Your task to perform on an android device: turn off notifications in google photos Image 0: 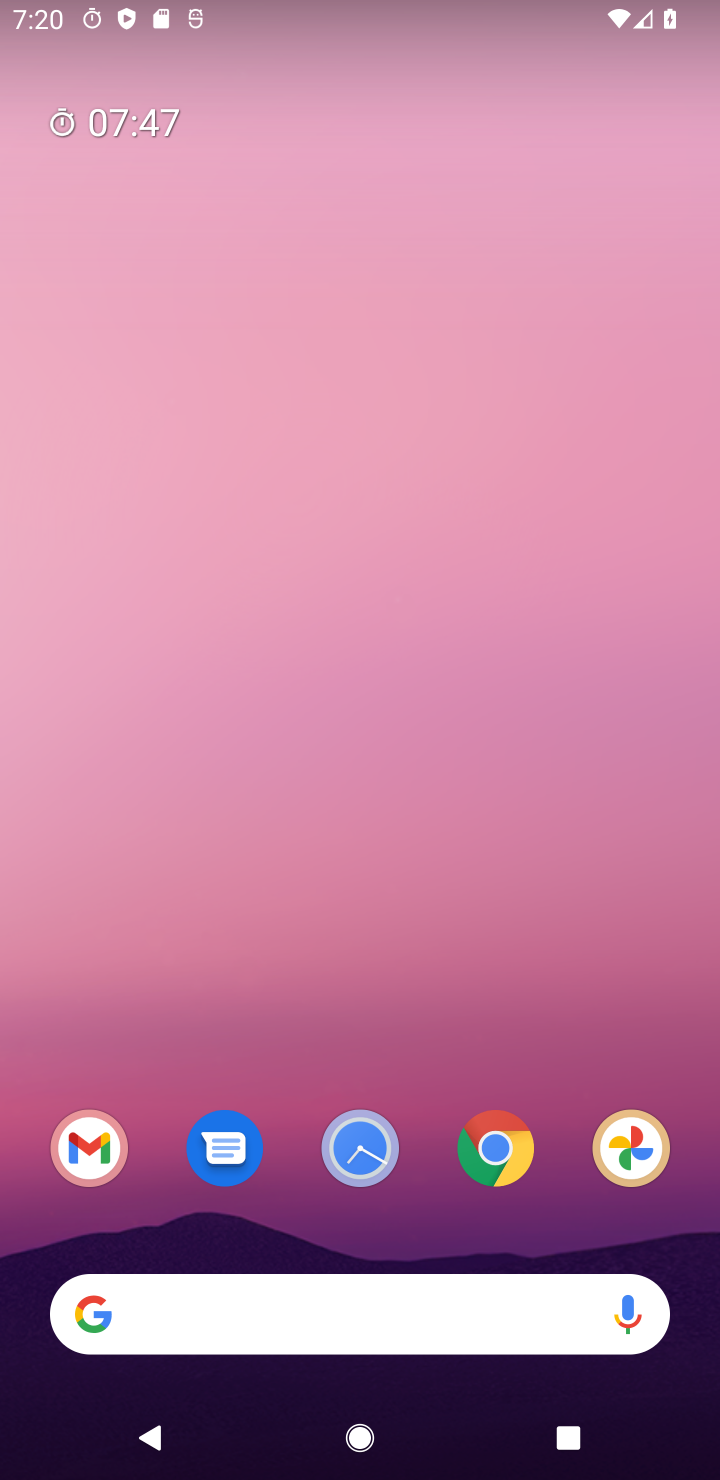
Step 0: press home button
Your task to perform on an android device: turn off notifications in google photos Image 1: 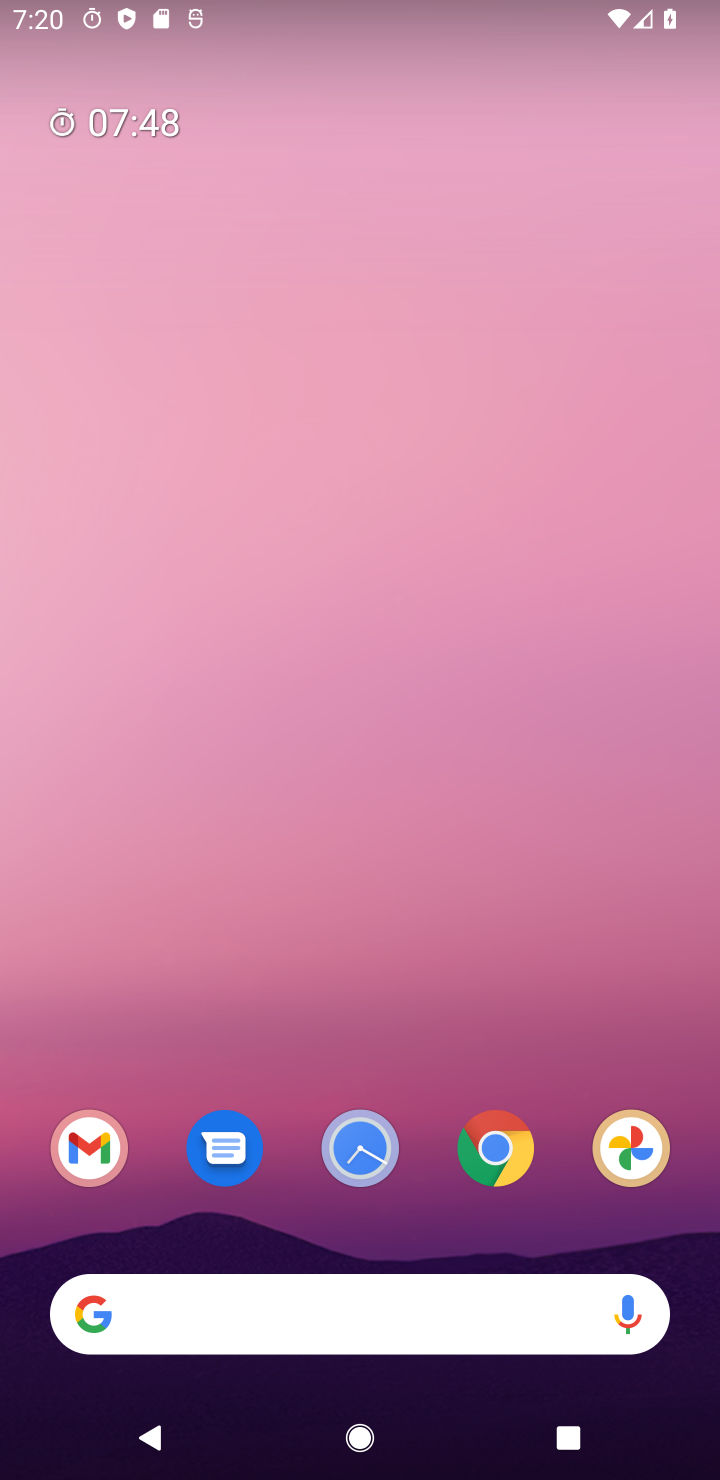
Step 1: drag from (409, 984) to (343, 65)
Your task to perform on an android device: turn off notifications in google photos Image 2: 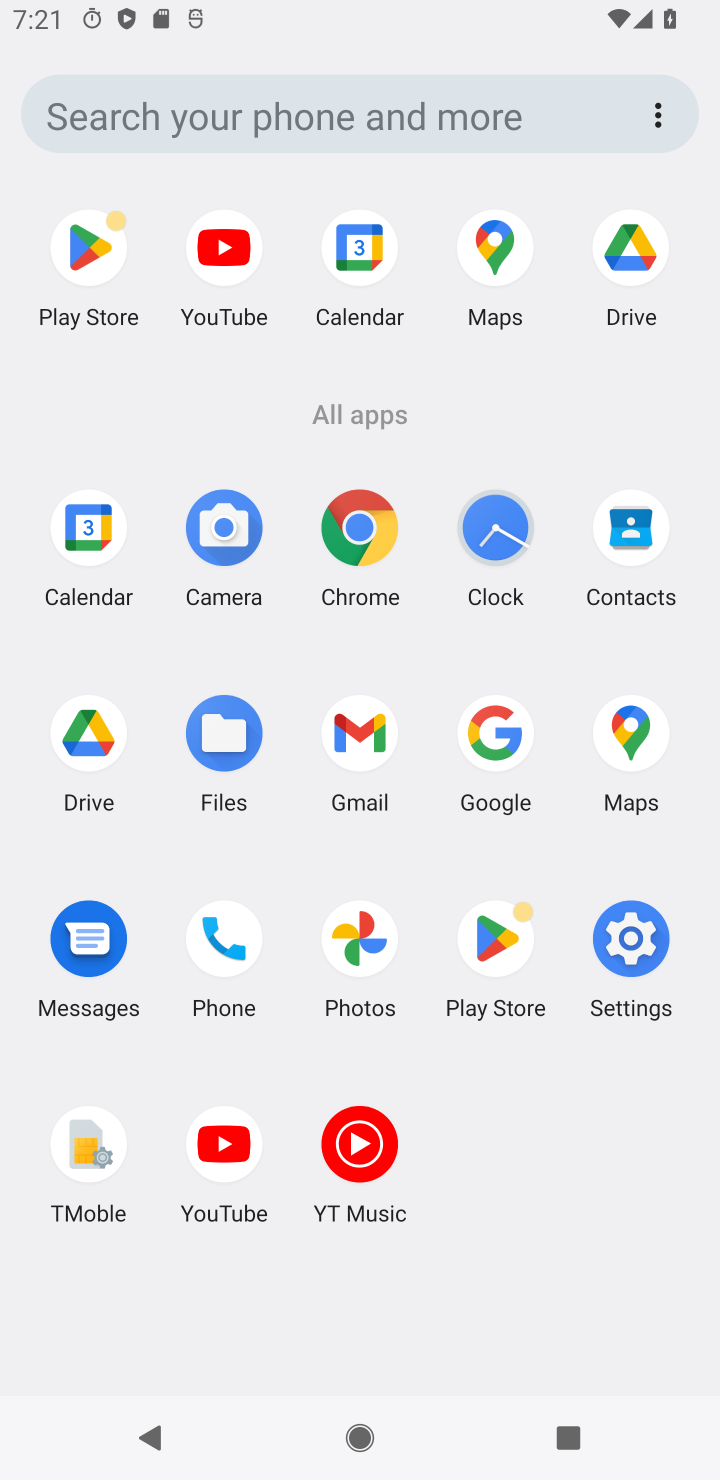
Step 2: click (313, 977)
Your task to perform on an android device: turn off notifications in google photos Image 3: 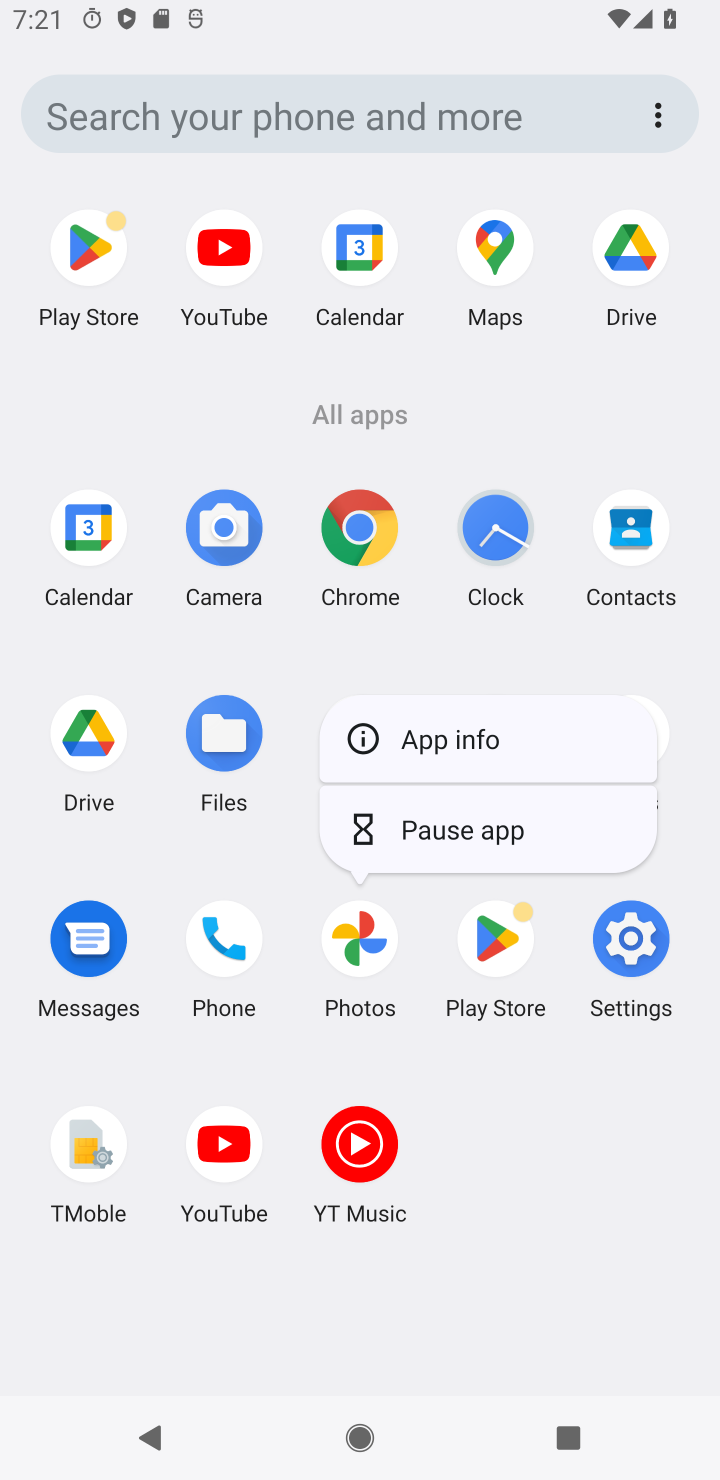
Step 3: click (471, 739)
Your task to perform on an android device: turn off notifications in google photos Image 4: 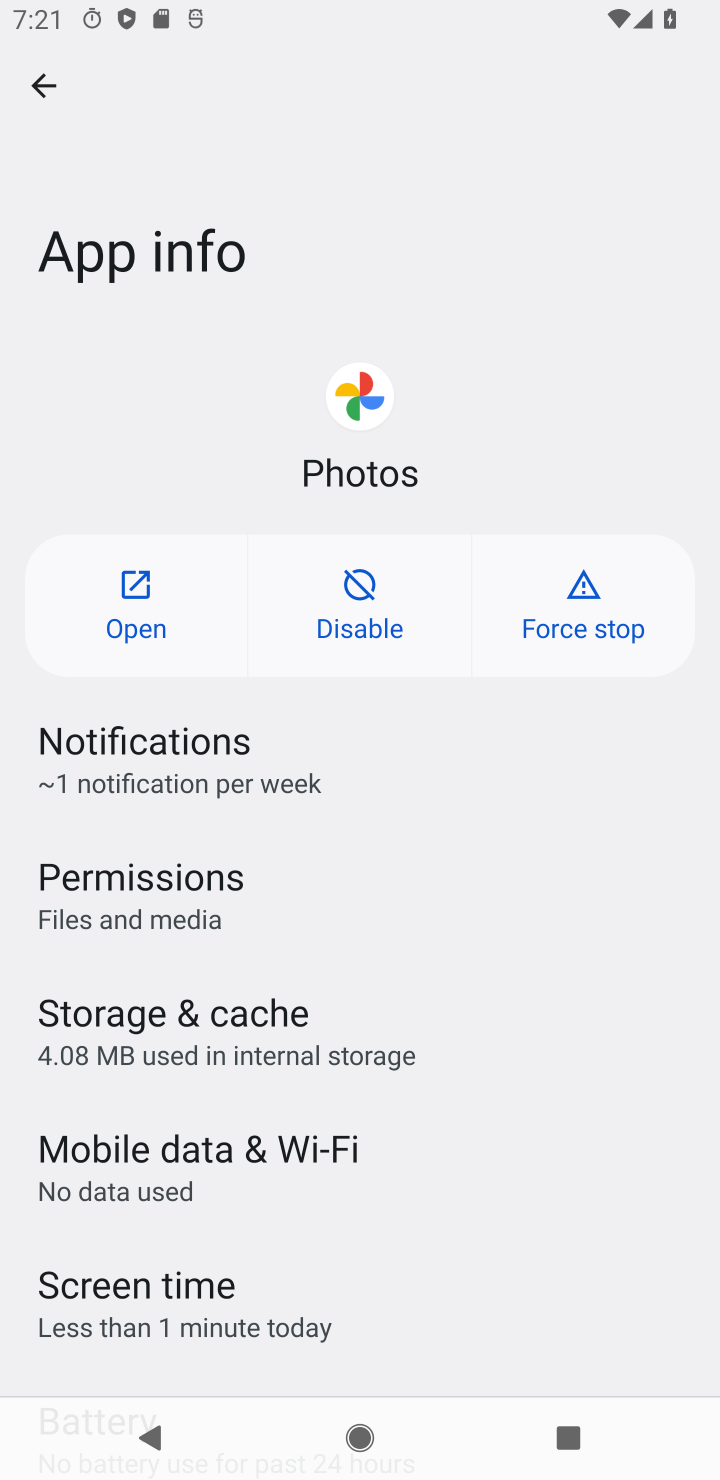
Step 4: click (174, 785)
Your task to perform on an android device: turn off notifications in google photos Image 5: 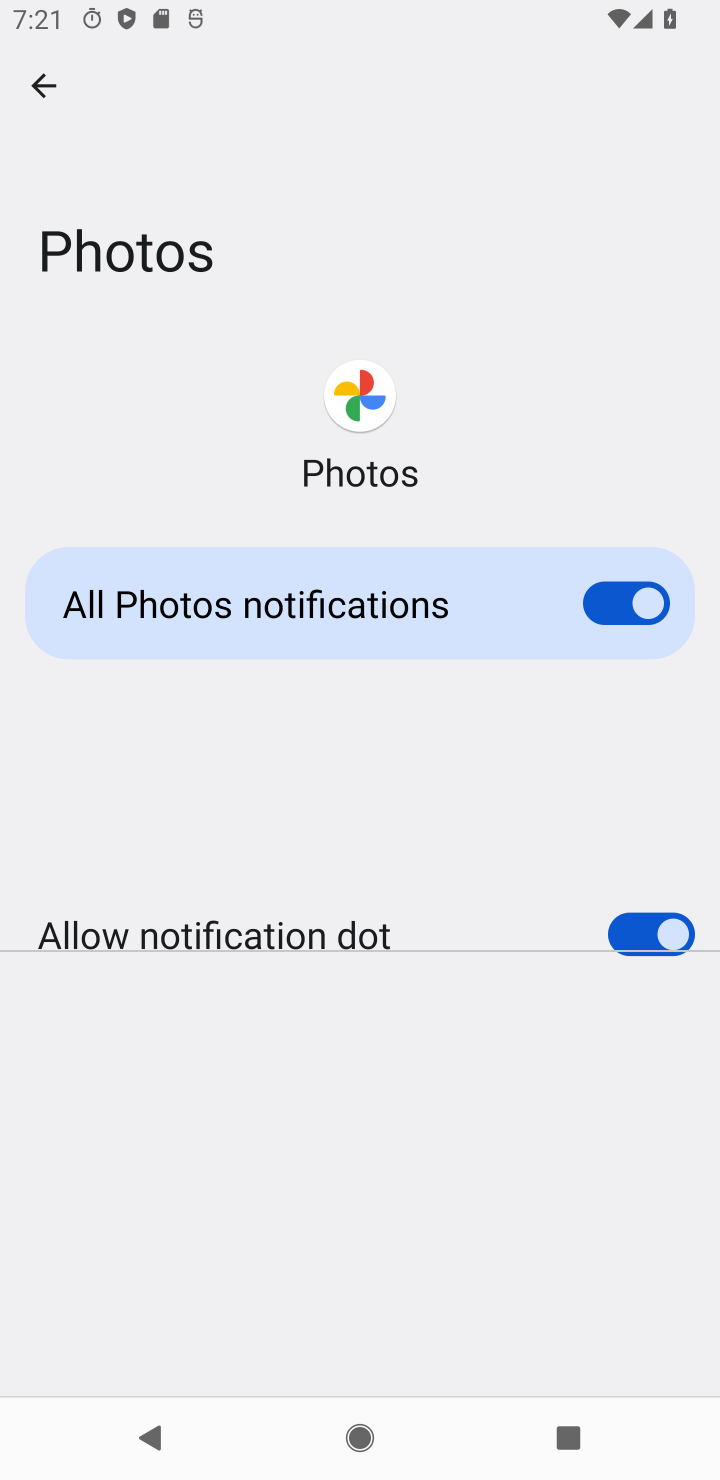
Step 5: click (561, 611)
Your task to perform on an android device: turn off notifications in google photos Image 6: 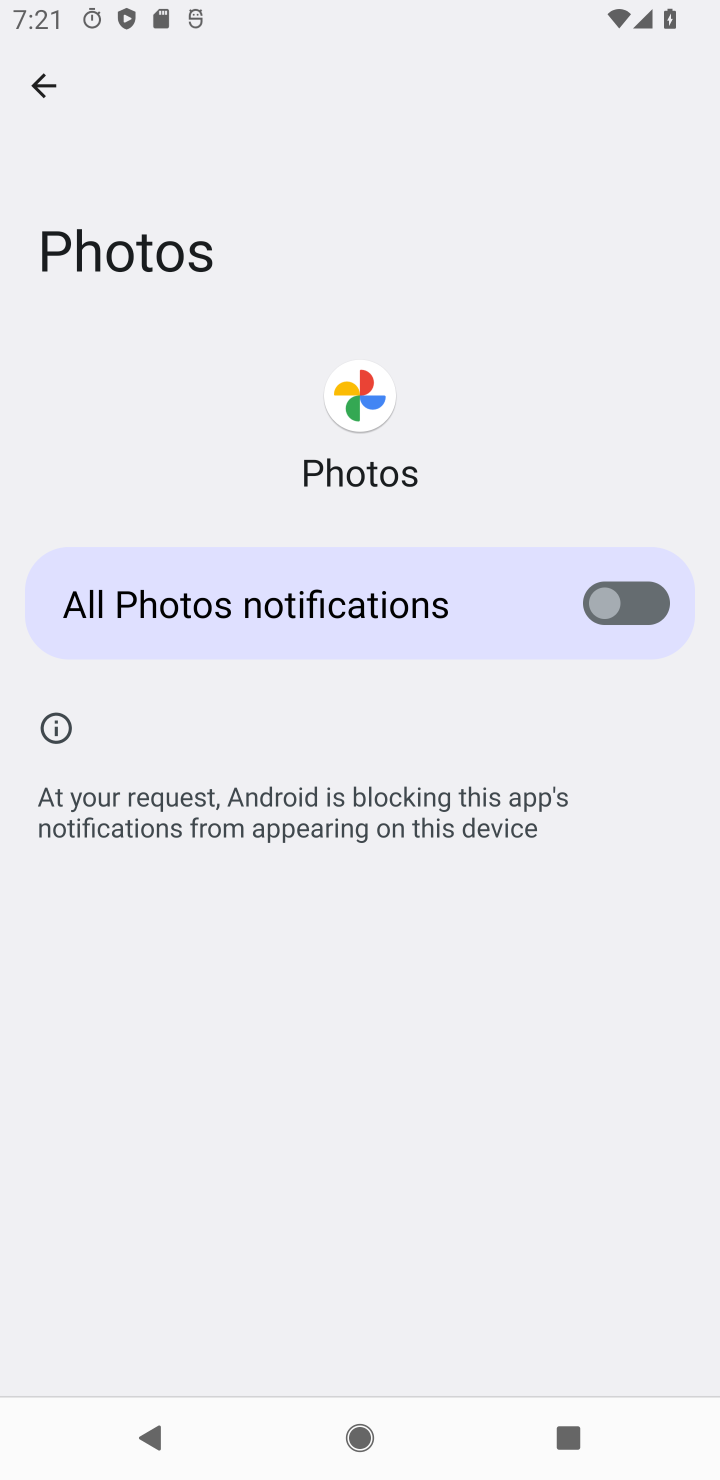
Step 6: task complete